Your task to perform on an android device: turn on wifi Image 0: 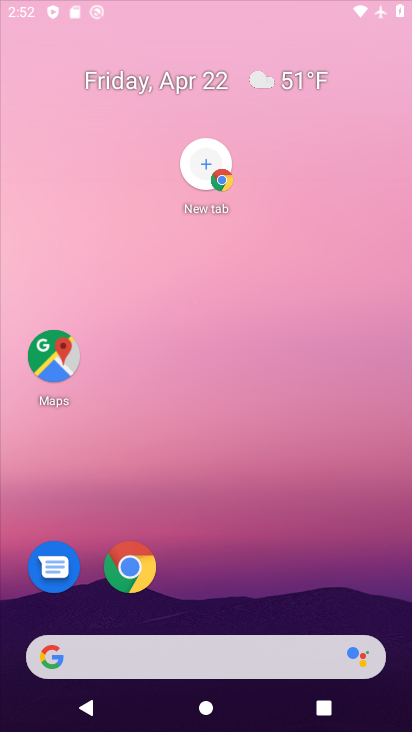
Step 0: click (152, 63)
Your task to perform on an android device: turn on wifi Image 1: 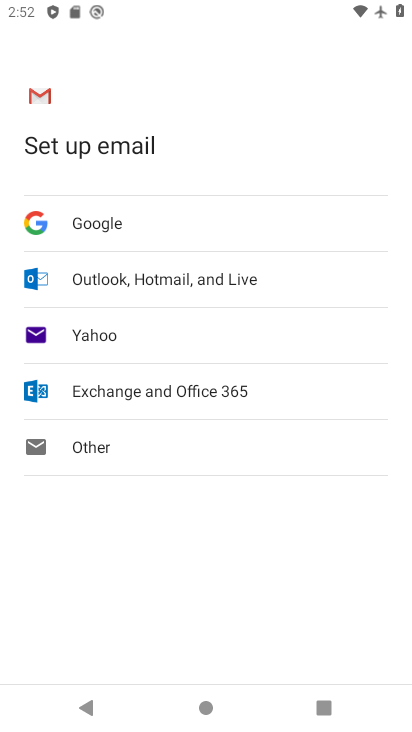
Step 1: press home button
Your task to perform on an android device: turn on wifi Image 2: 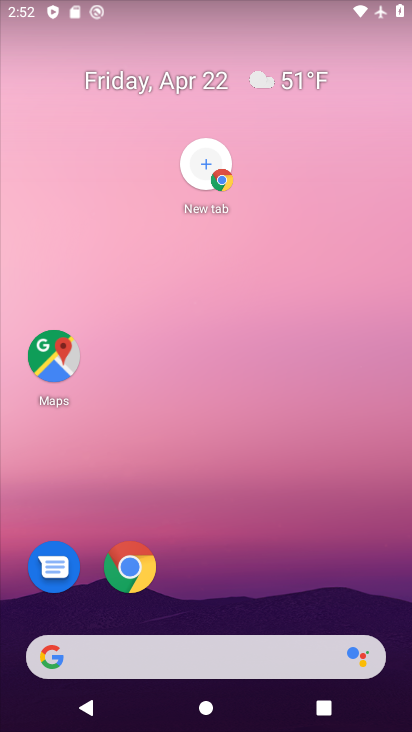
Step 2: drag from (245, 626) to (102, 93)
Your task to perform on an android device: turn on wifi Image 3: 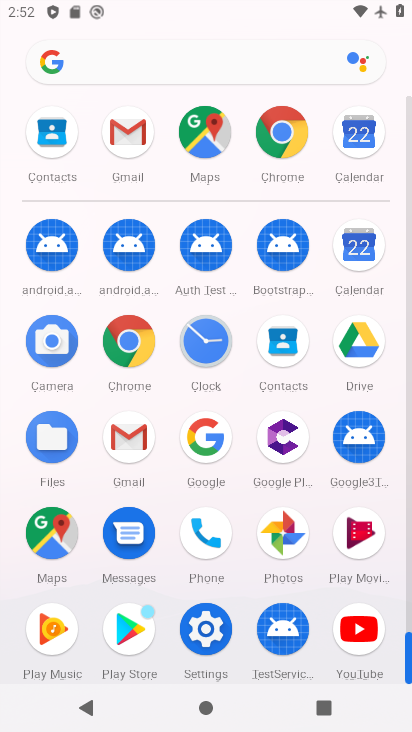
Step 3: drag from (204, 371) to (133, 133)
Your task to perform on an android device: turn on wifi Image 4: 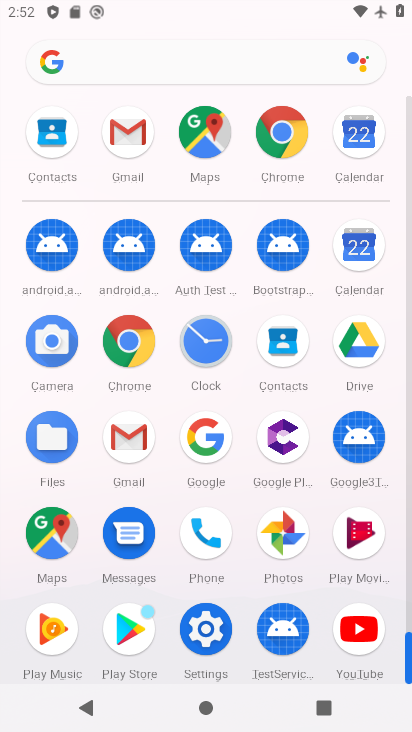
Step 4: click (202, 636)
Your task to perform on an android device: turn on wifi Image 5: 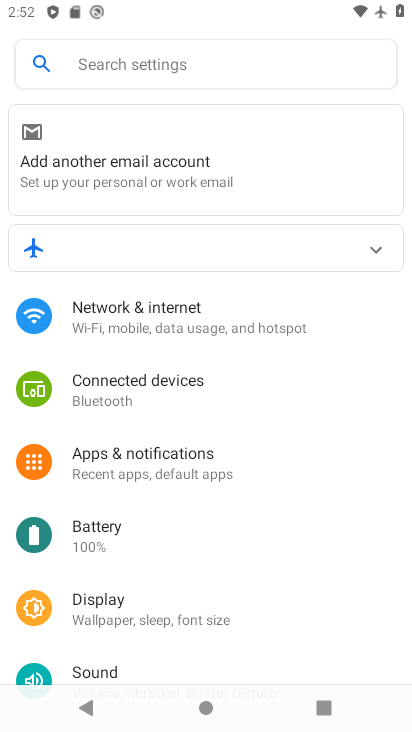
Step 5: click (133, 301)
Your task to perform on an android device: turn on wifi Image 6: 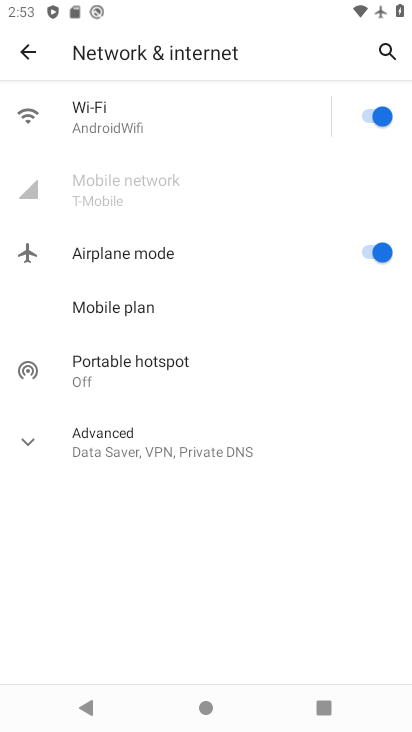
Step 6: task complete